Your task to perform on an android device: Open Google Chrome and open the bookmarks view Image 0: 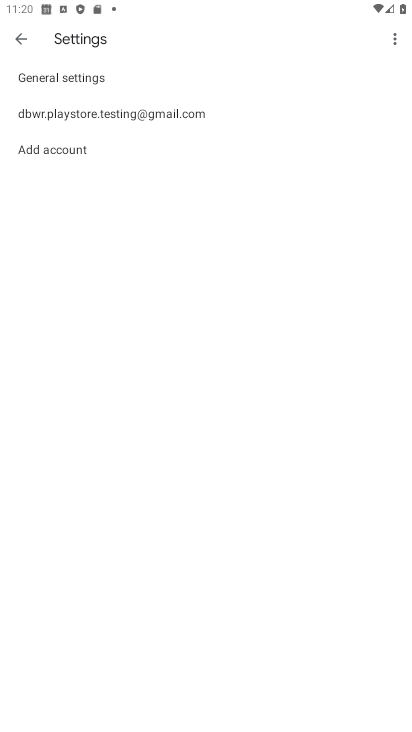
Step 0: press home button
Your task to perform on an android device: Open Google Chrome and open the bookmarks view Image 1: 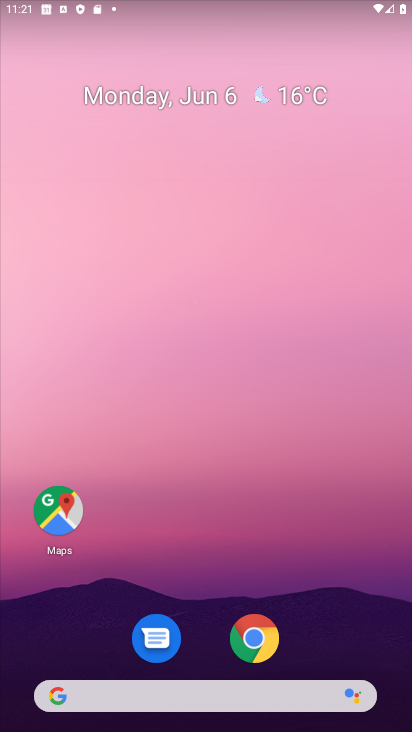
Step 1: drag from (258, 706) to (215, 116)
Your task to perform on an android device: Open Google Chrome and open the bookmarks view Image 2: 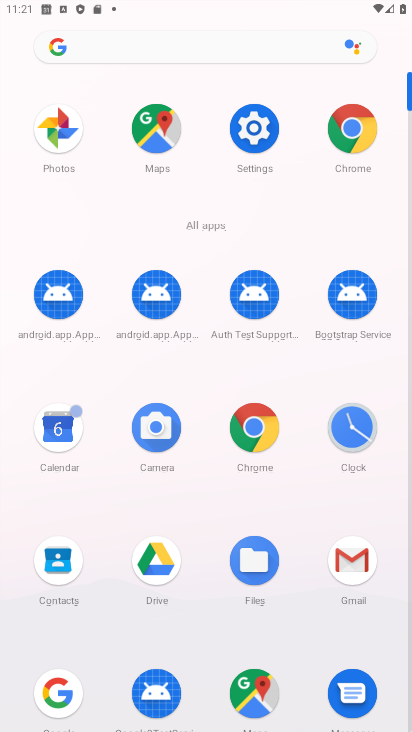
Step 2: click (352, 131)
Your task to perform on an android device: Open Google Chrome and open the bookmarks view Image 3: 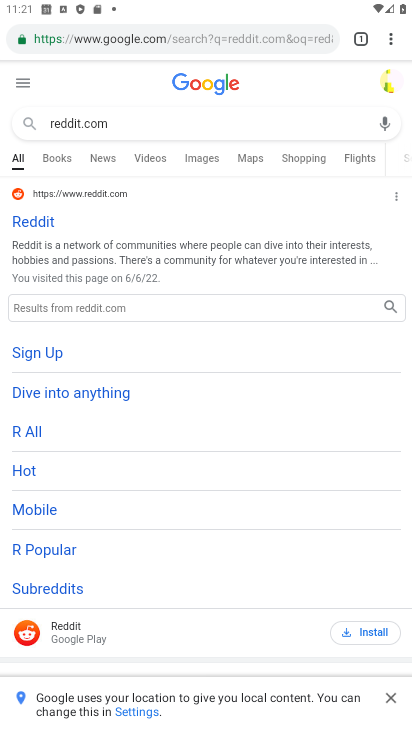
Step 3: click (386, 43)
Your task to perform on an android device: Open Google Chrome and open the bookmarks view Image 4: 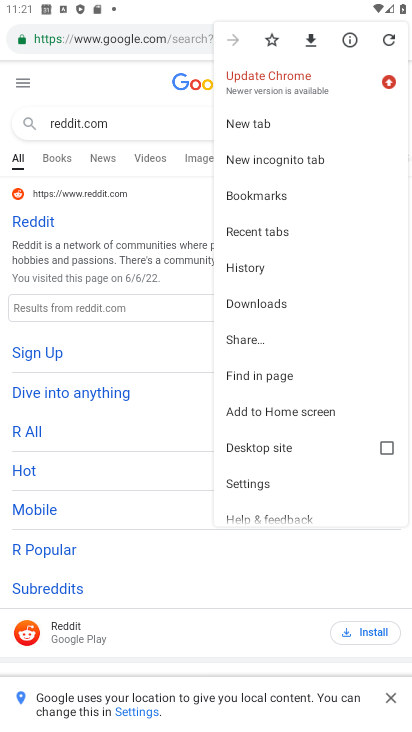
Step 4: click (263, 192)
Your task to perform on an android device: Open Google Chrome and open the bookmarks view Image 5: 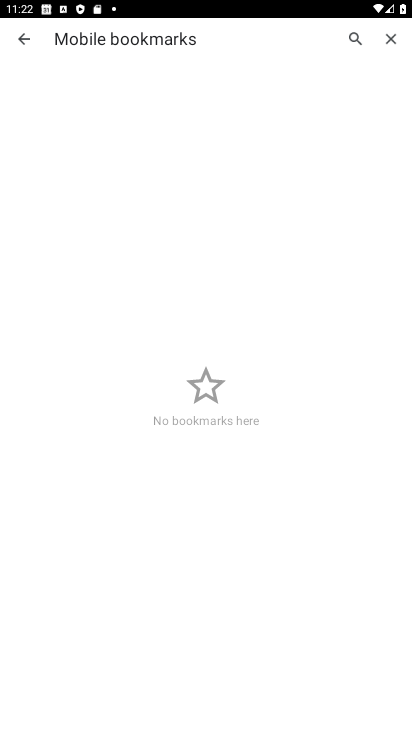
Step 5: task complete